Your task to perform on an android device: find which apps use the phone's location Image 0: 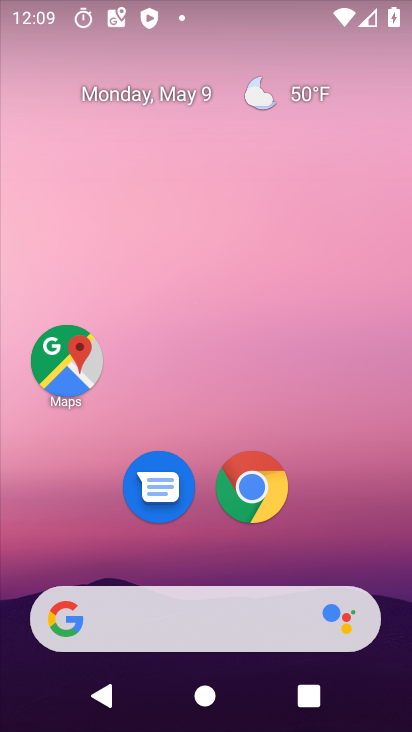
Step 0: drag from (286, 543) to (339, 127)
Your task to perform on an android device: find which apps use the phone's location Image 1: 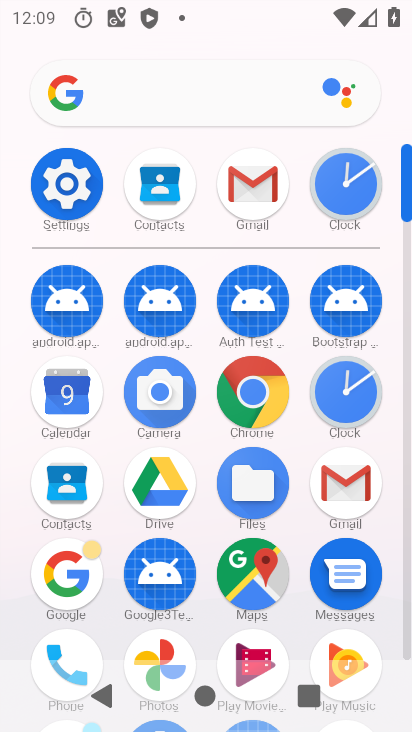
Step 1: click (71, 199)
Your task to perform on an android device: find which apps use the phone's location Image 2: 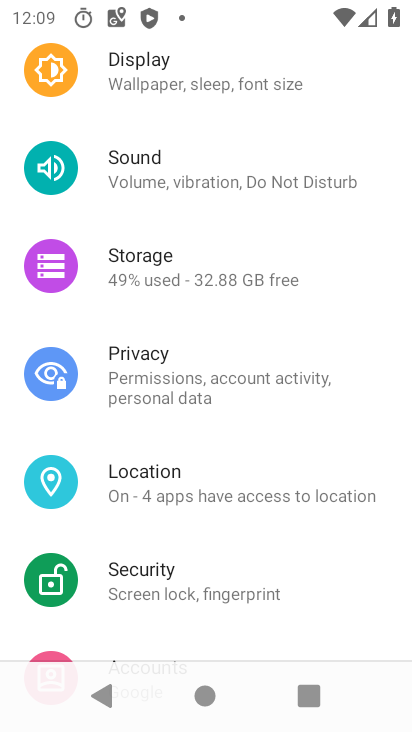
Step 2: click (186, 487)
Your task to perform on an android device: find which apps use the phone's location Image 3: 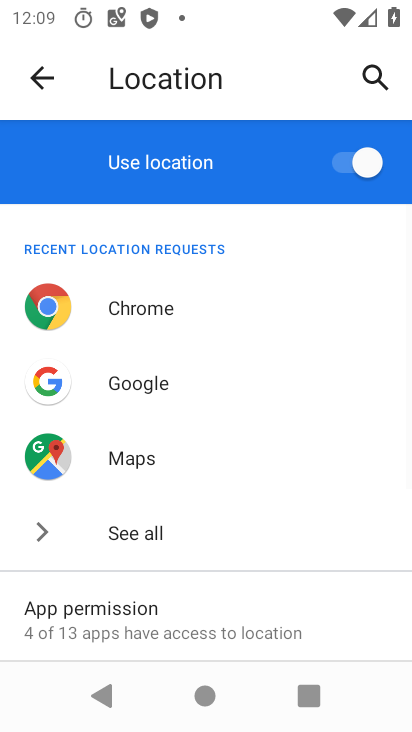
Step 3: click (176, 318)
Your task to perform on an android device: find which apps use the phone's location Image 4: 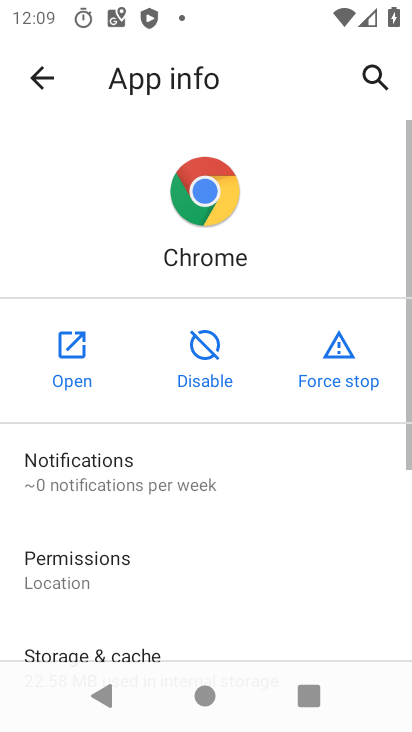
Step 4: click (199, 581)
Your task to perform on an android device: find which apps use the phone's location Image 5: 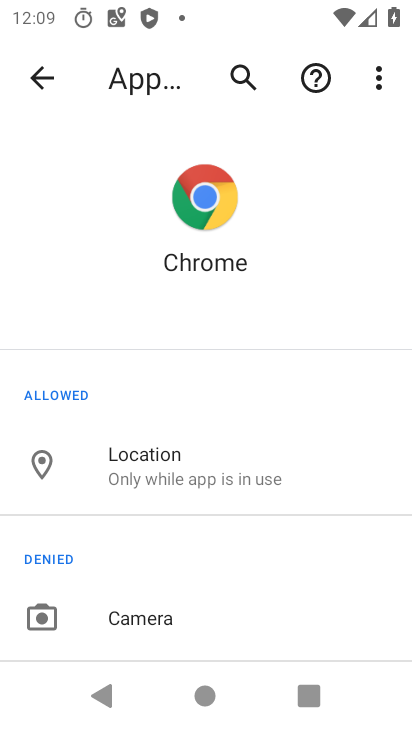
Step 5: task complete